Your task to perform on an android device: Add macbook pro to the cart on newegg.com, then select checkout. Image 0: 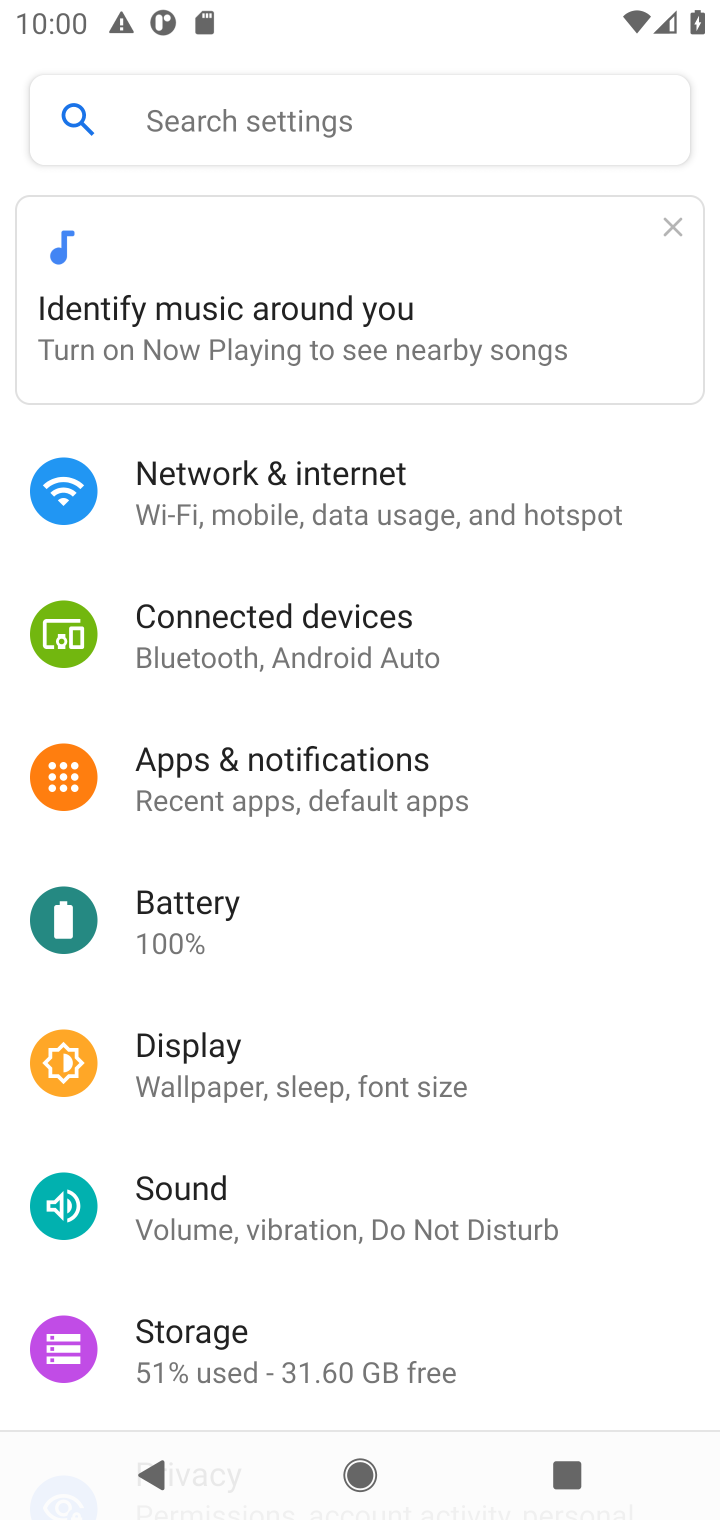
Step 0: press home button
Your task to perform on an android device: Add macbook pro to the cart on newegg.com, then select checkout. Image 1: 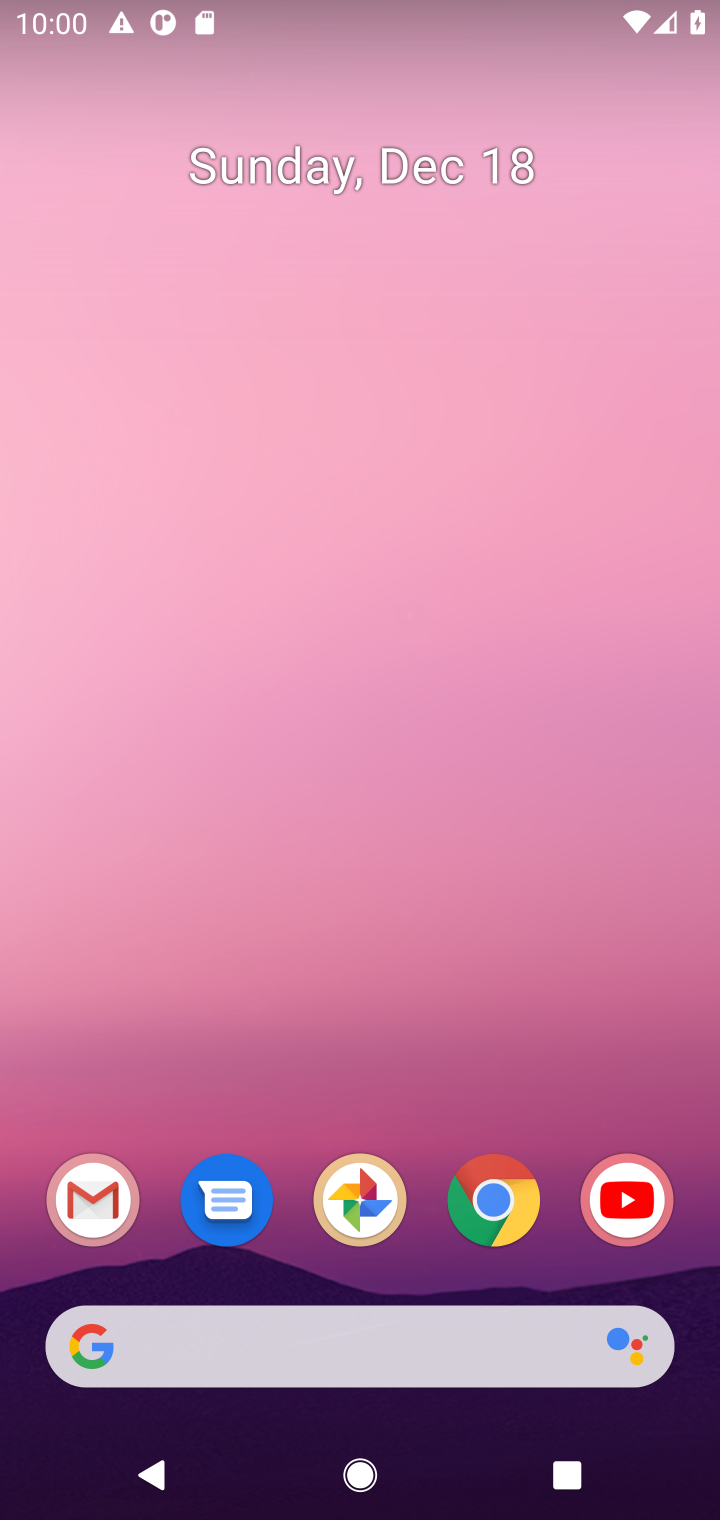
Step 1: click (496, 1194)
Your task to perform on an android device: Add macbook pro to the cart on newegg.com, then select checkout. Image 2: 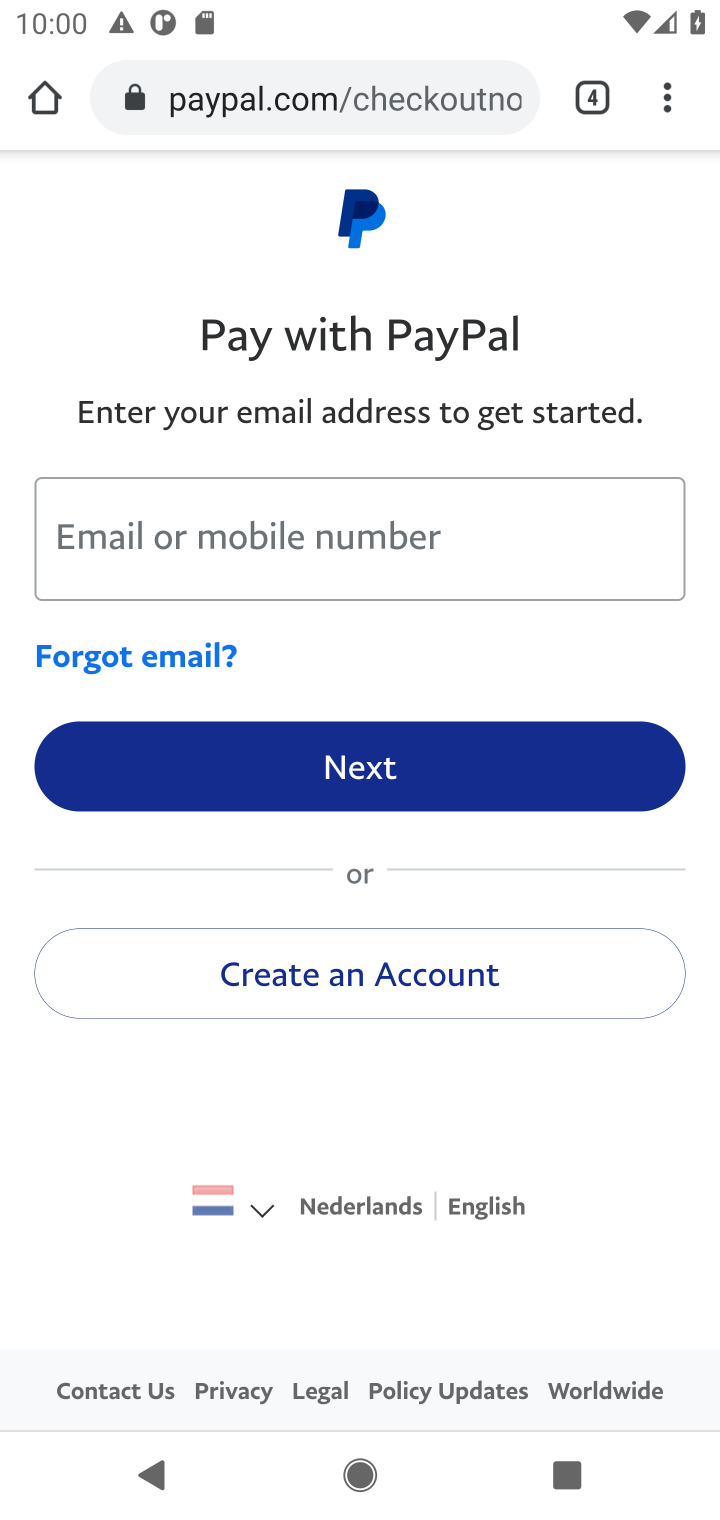
Step 2: click (278, 94)
Your task to perform on an android device: Add macbook pro to the cart on newegg.com, then select checkout. Image 3: 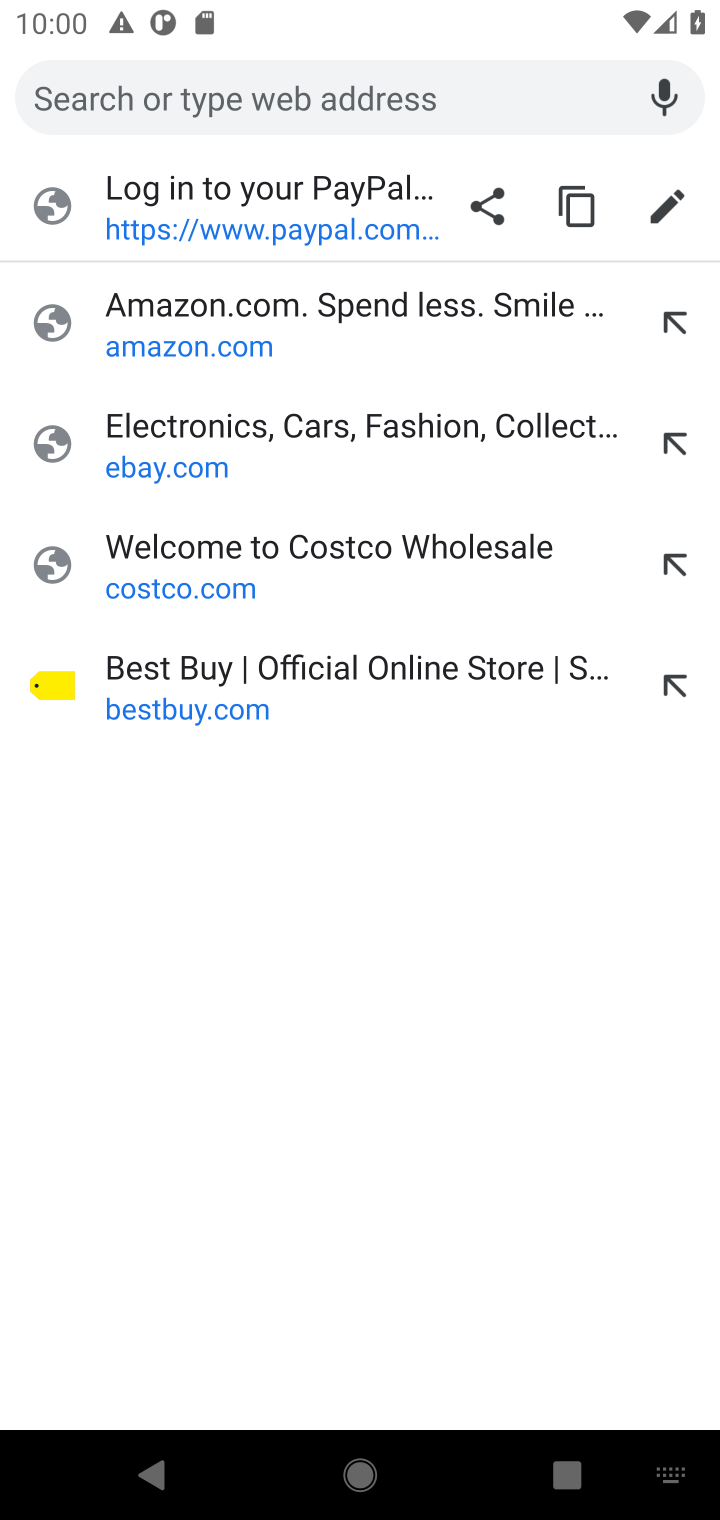
Step 3: type "newegg.com"
Your task to perform on an android device: Add macbook pro to the cart on newegg.com, then select checkout. Image 4: 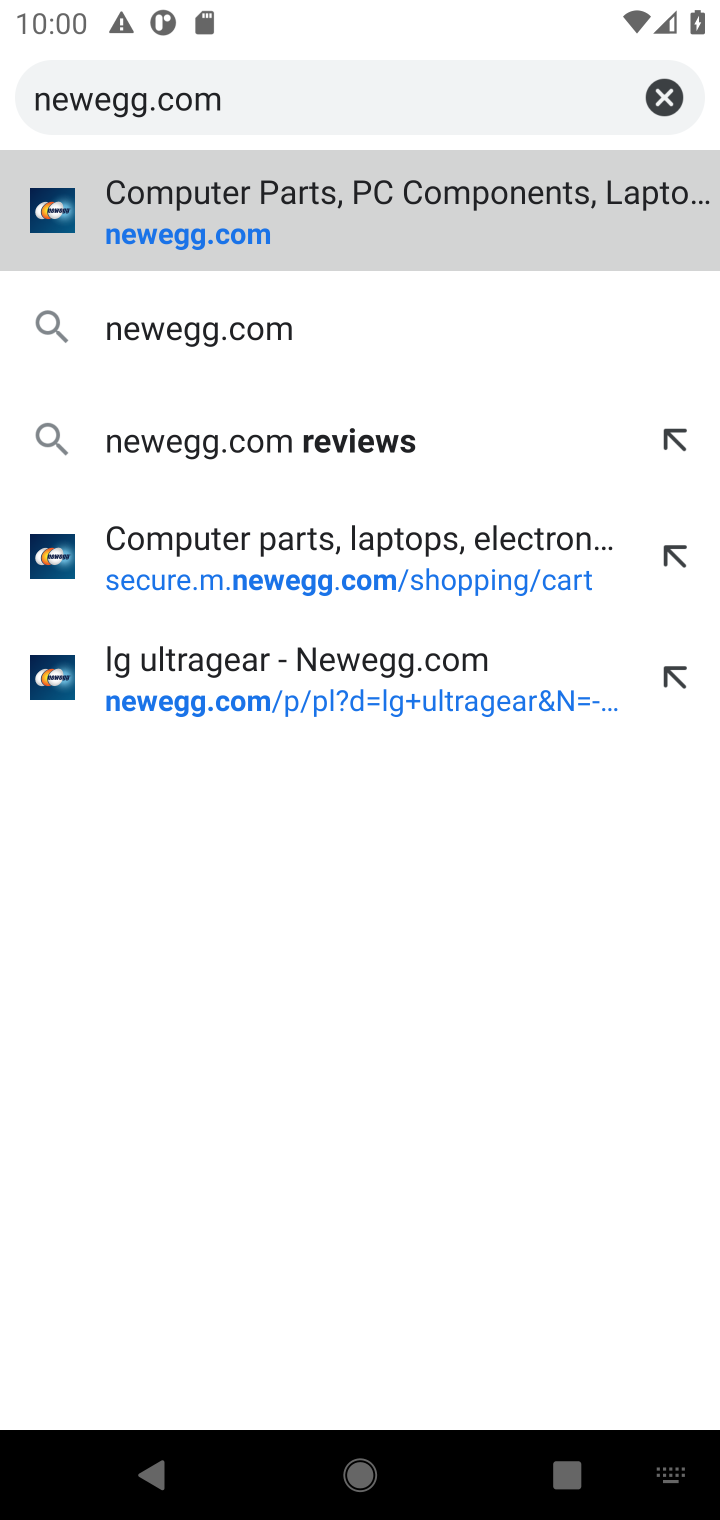
Step 4: click (153, 246)
Your task to perform on an android device: Add macbook pro to the cart on newegg.com, then select checkout. Image 5: 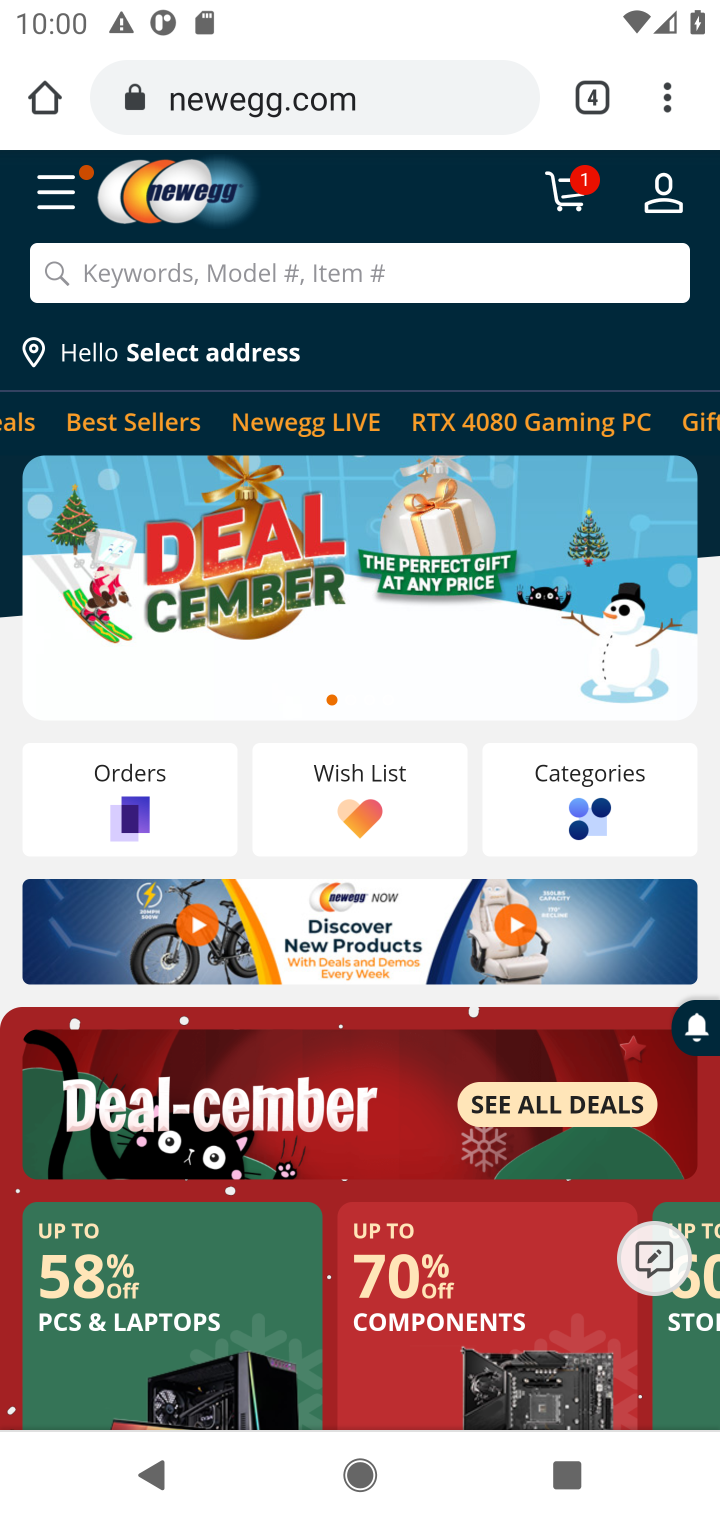
Step 5: click (244, 282)
Your task to perform on an android device: Add macbook pro to the cart on newegg.com, then select checkout. Image 6: 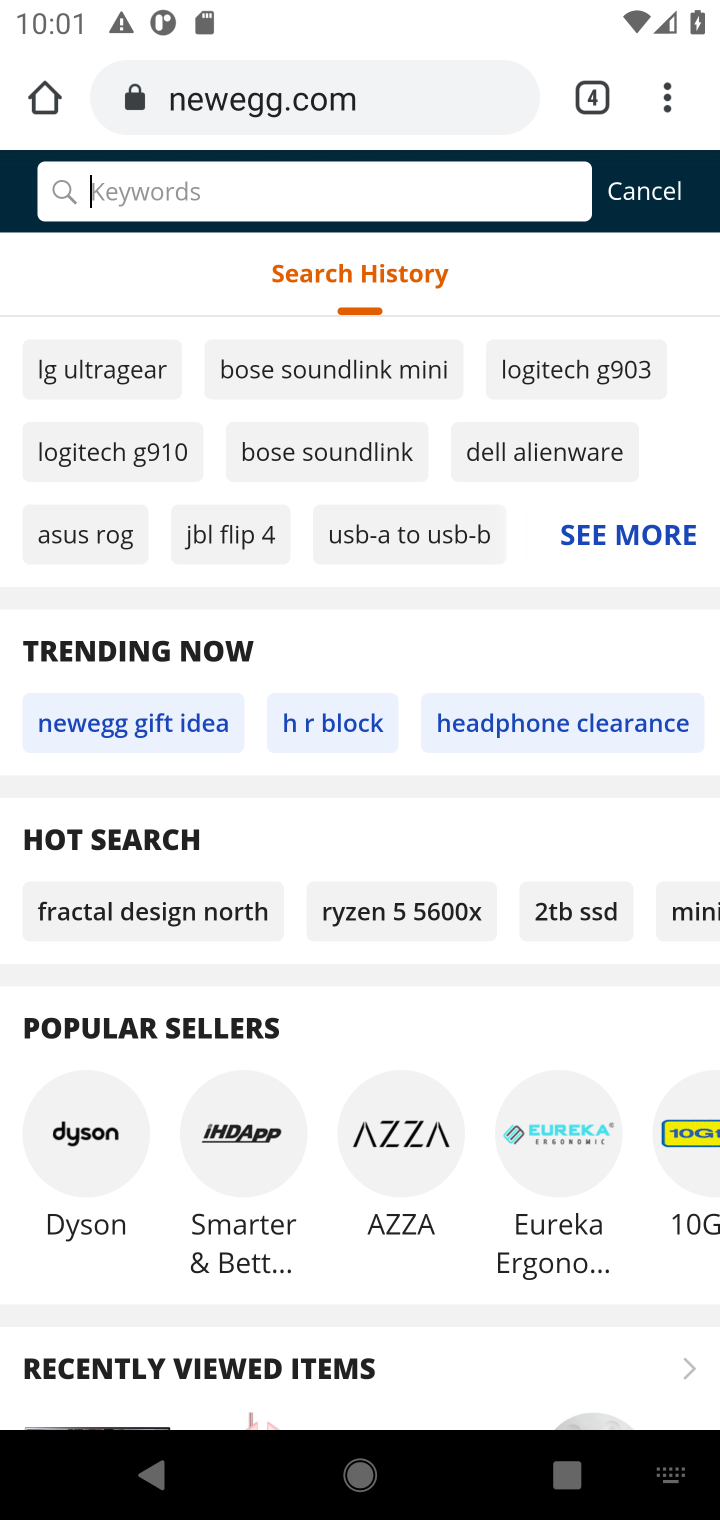
Step 6: type "macbook pro "
Your task to perform on an android device: Add macbook pro to the cart on newegg.com, then select checkout. Image 7: 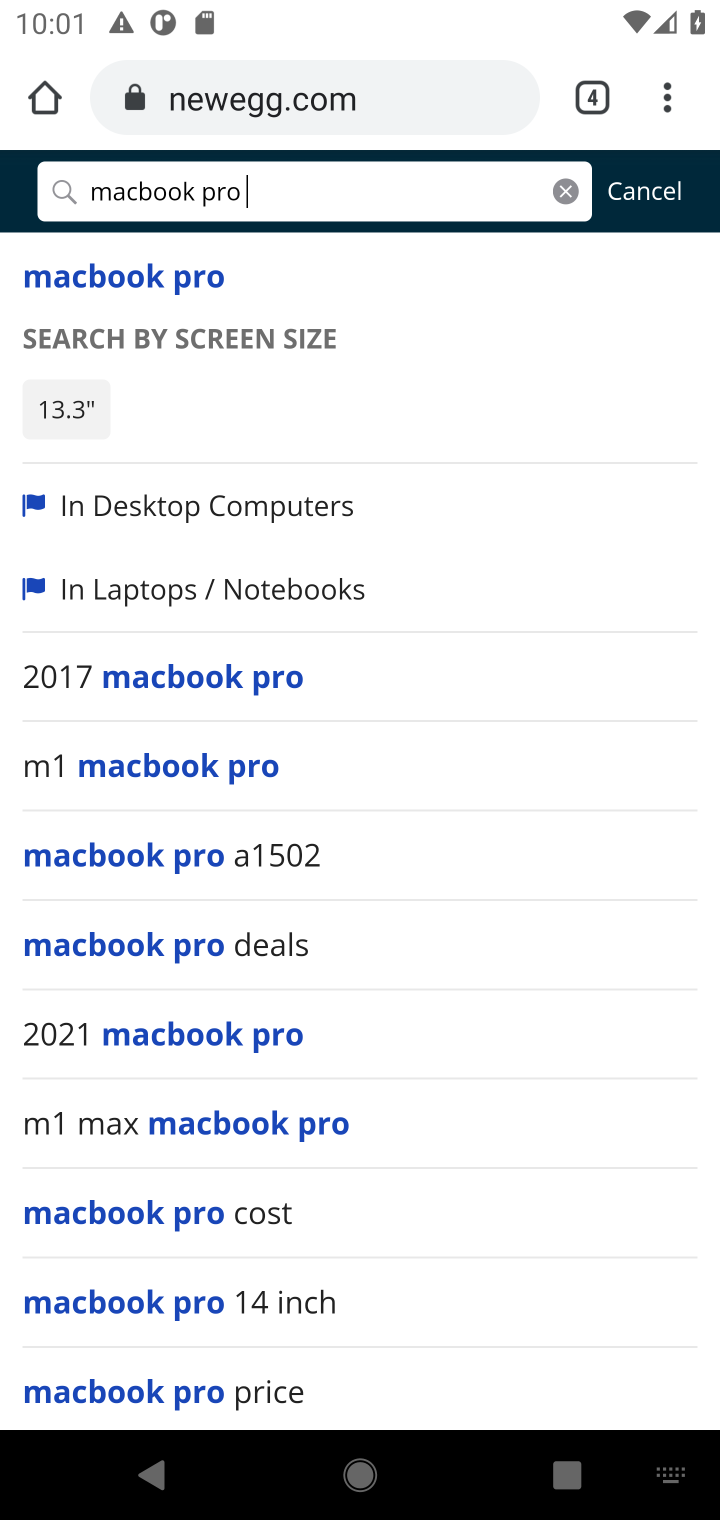
Step 7: click (88, 285)
Your task to perform on an android device: Add macbook pro to the cart on newegg.com, then select checkout. Image 8: 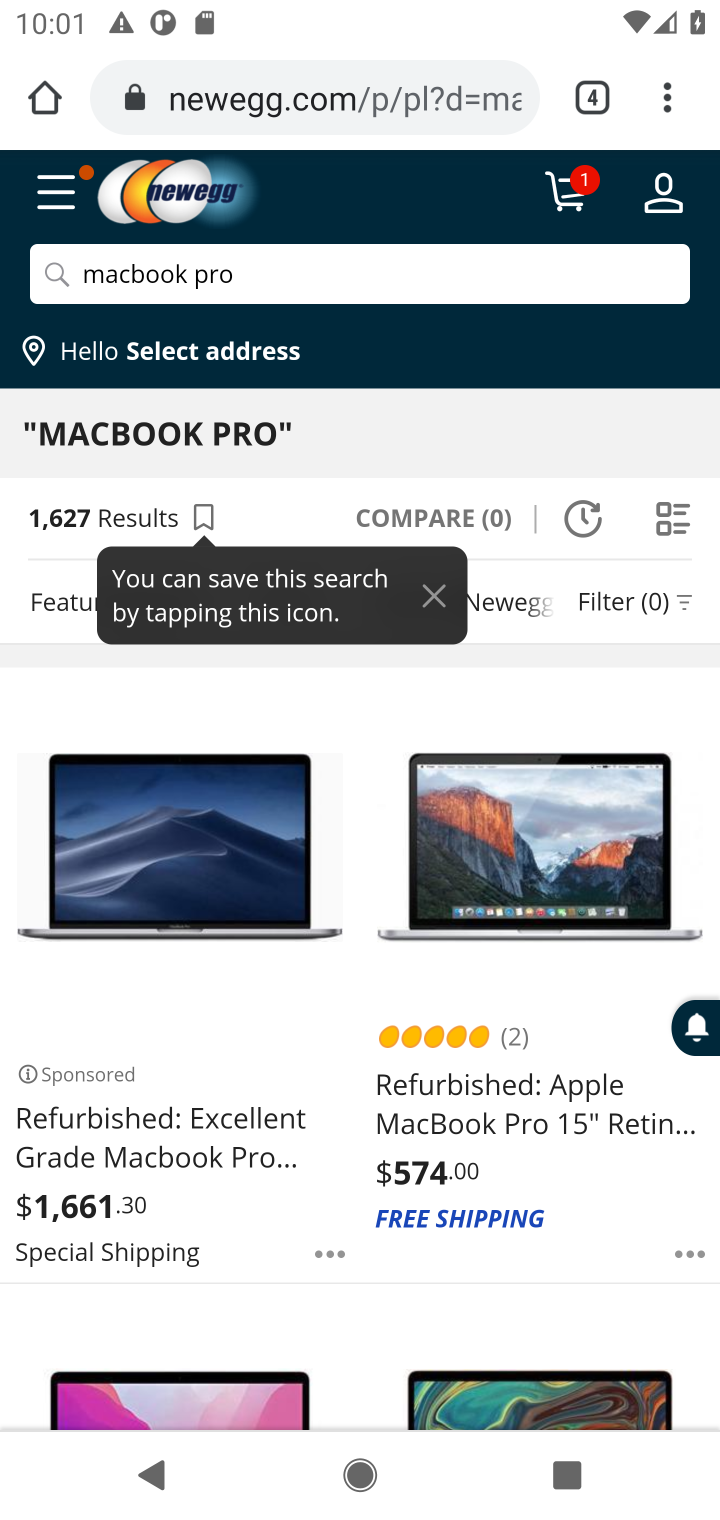
Step 8: click (142, 1137)
Your task to perform on an android device: Add macbook pro to the cart on newegg.com, then select checkout. Image 9: 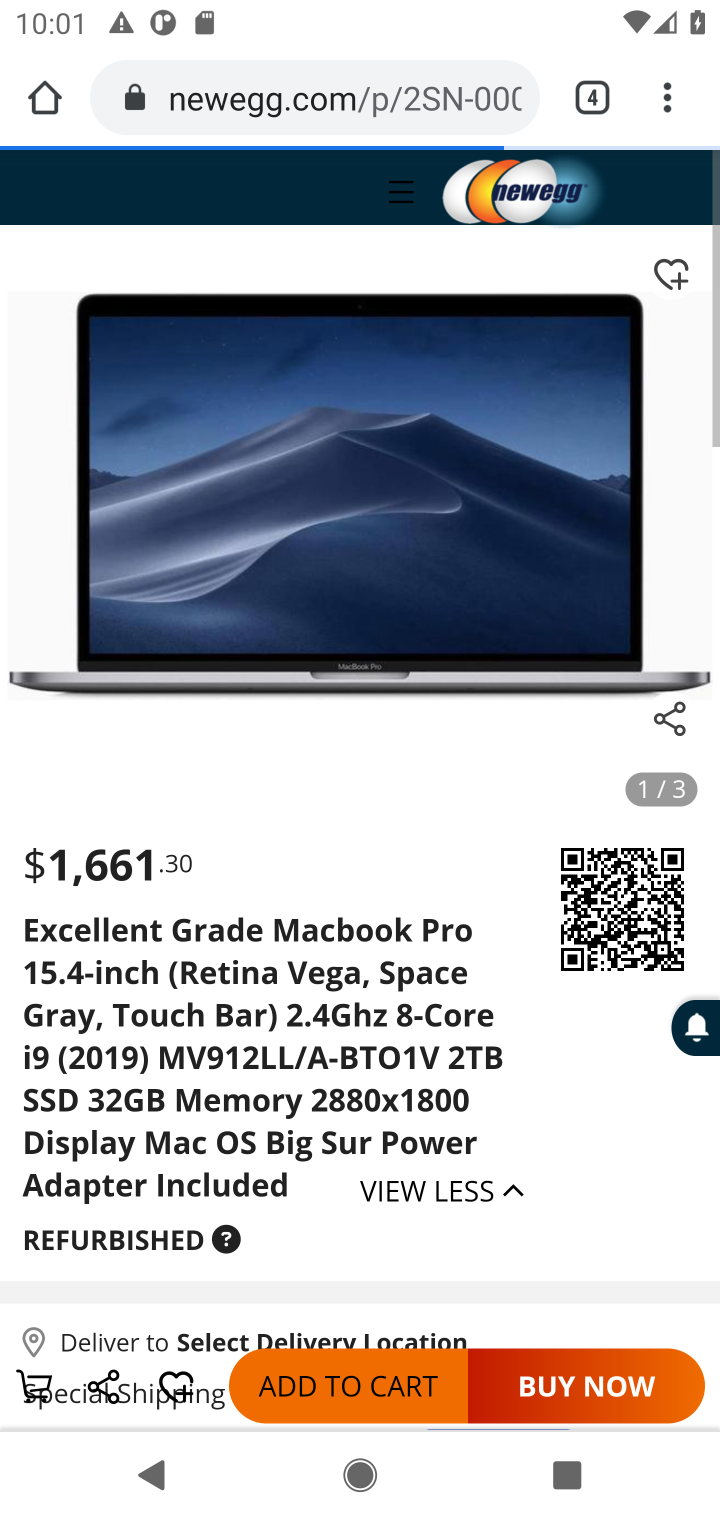
Step 9: click (119, 1166)
Your task to perform on an android device: Add macbook pro to the cart on newegg.com, then select checkout. Image 10: 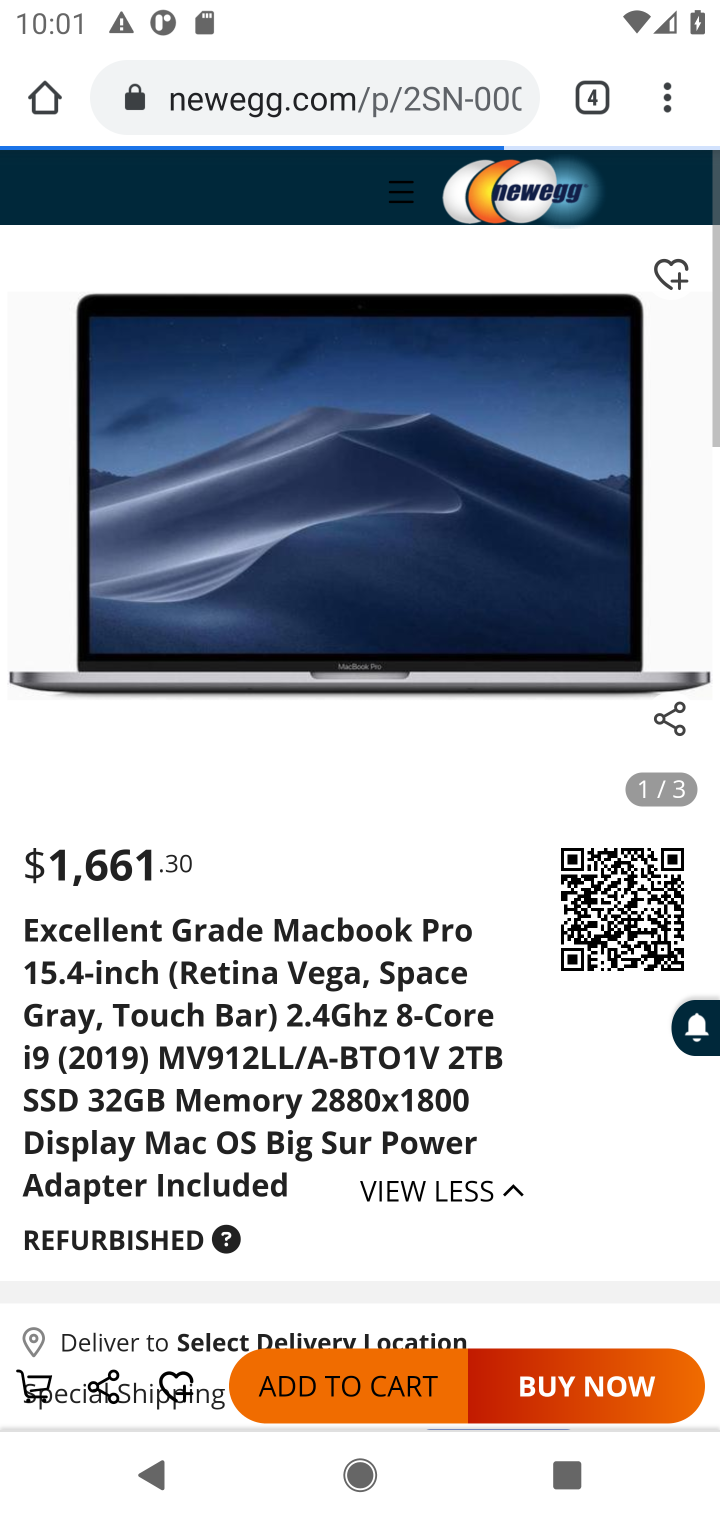
Step 10: drag from (119, 1166) to (136, 727)
Your task to perform on an android device: Add macbook pro to the cart on newegg.com, then select checkout. Image 11: 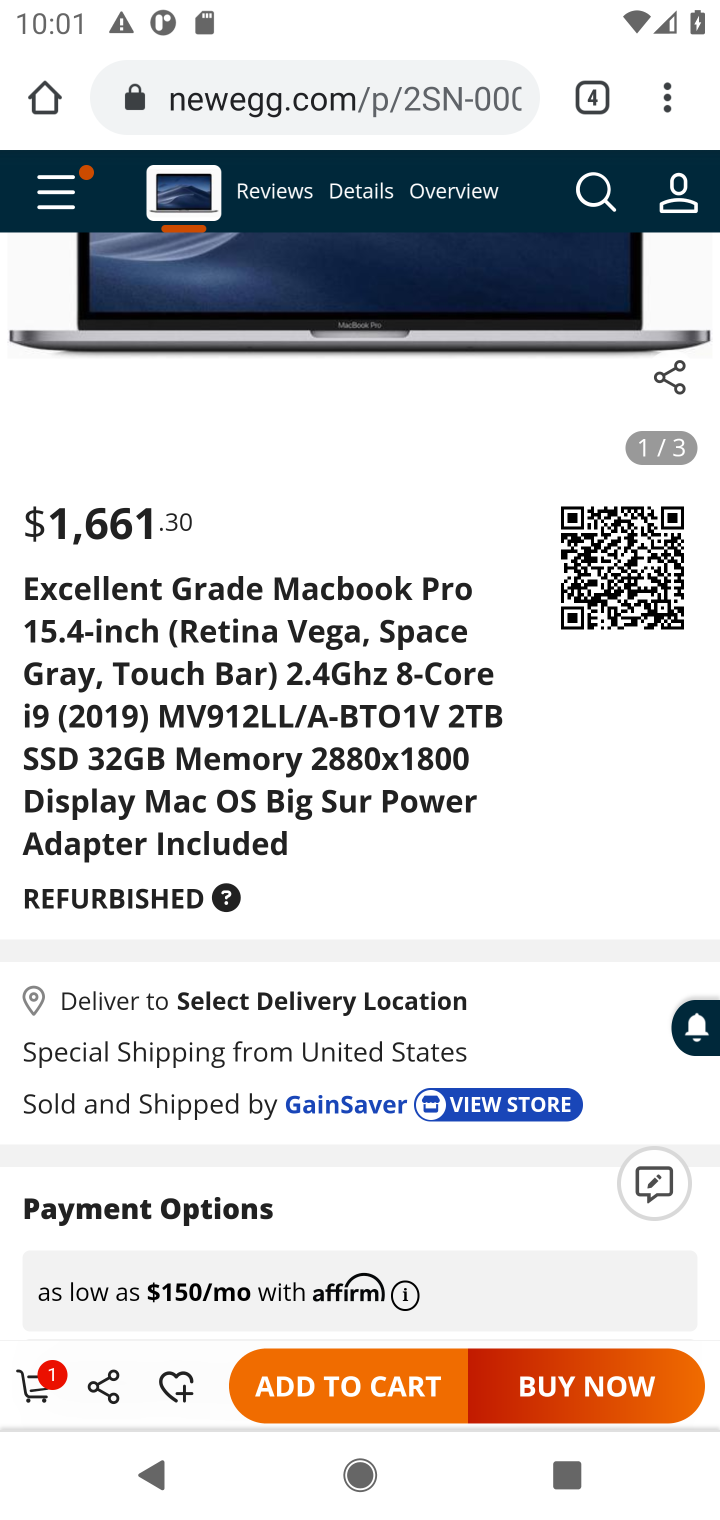
Step 11: click (338, 1392)
Your task to perform on an android device: Add macbook pro to the cart on newegg.com, then select checkout. Image 12: 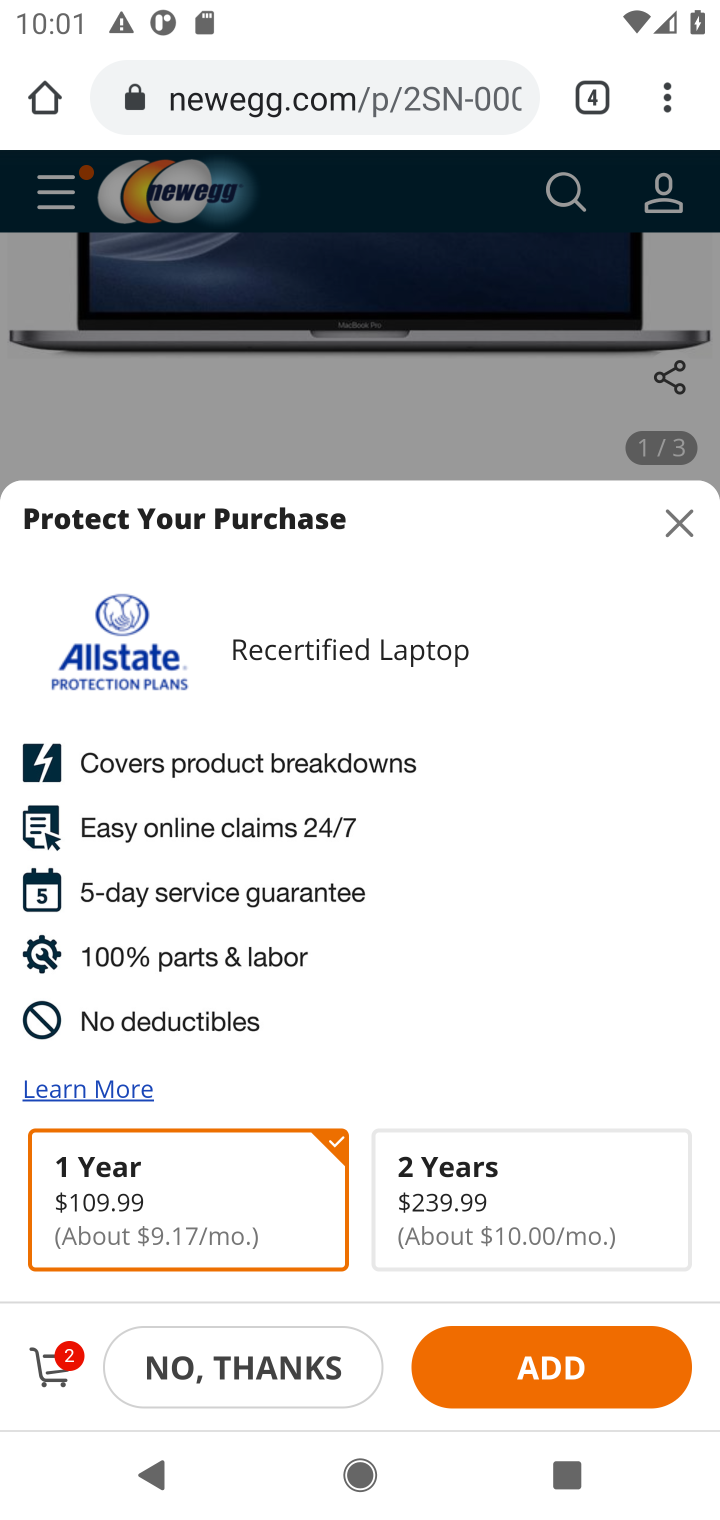
Step 12: click (66, 1366)
Your task to perform on an android device: Add macbook pro to the cart on newegg.com, then select checkout. Image 13: 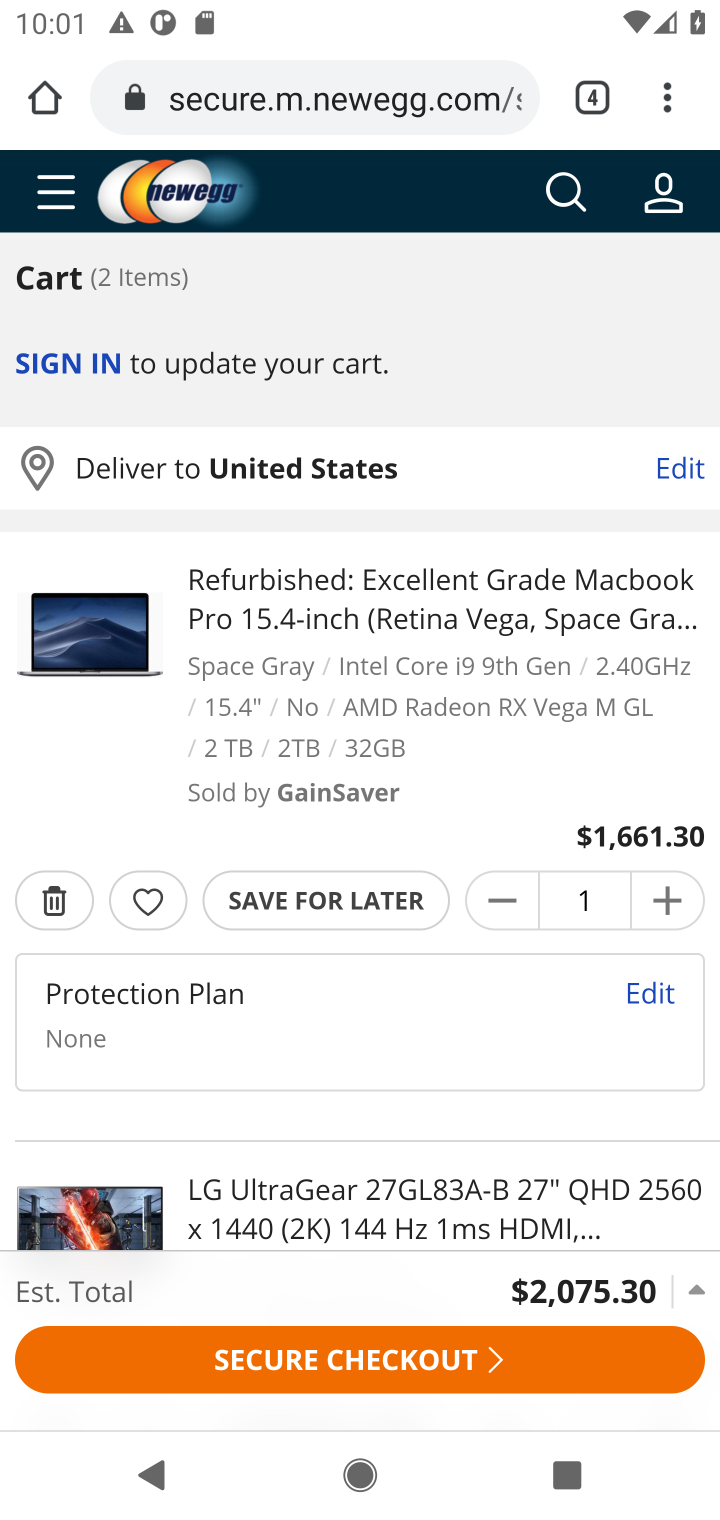
Step 13: click (208, 1371)
Your task to perform on an android device: Add macbook pro to the cart on newegg.com, then select checkout. Image 14: 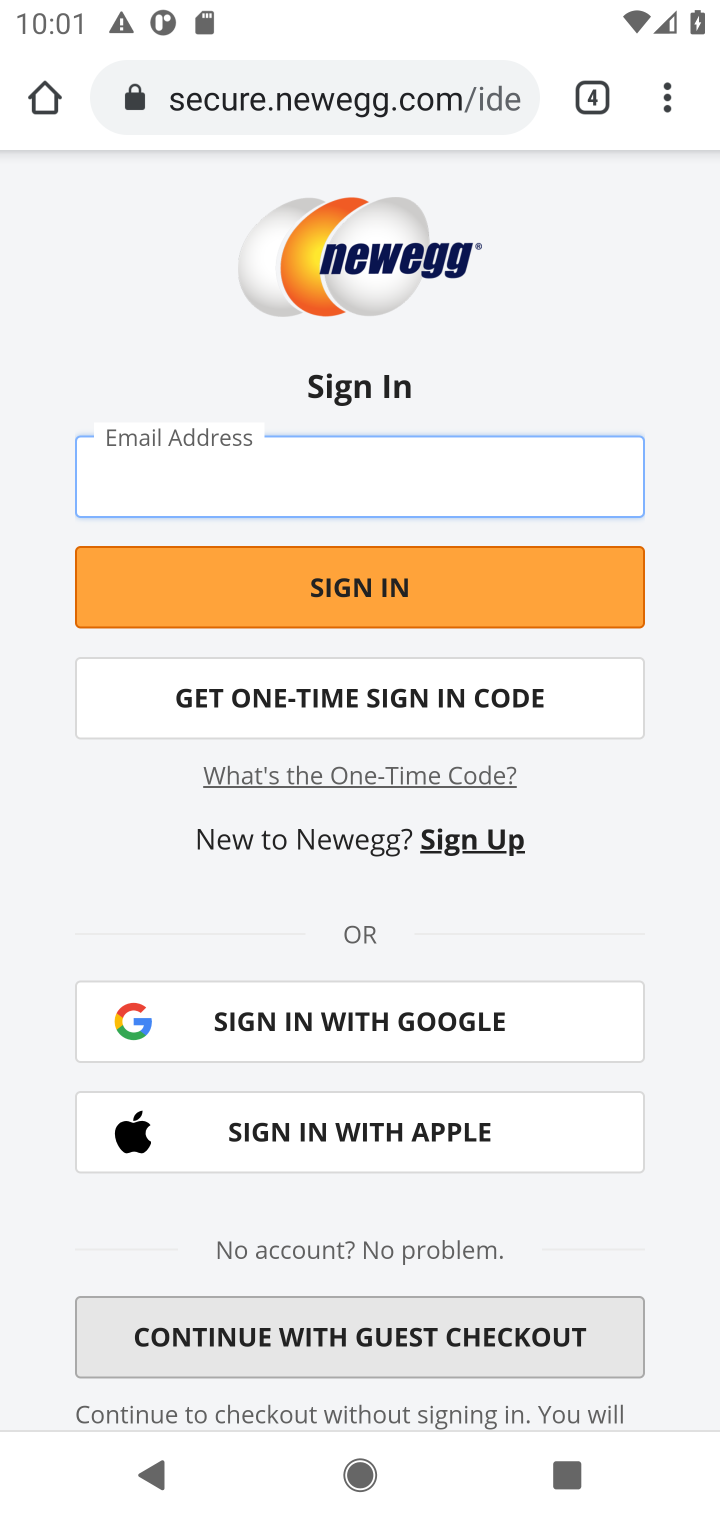
Step 14: task complete